Your task to perform on an android device: Show me popular games on the Play Store Image 0: 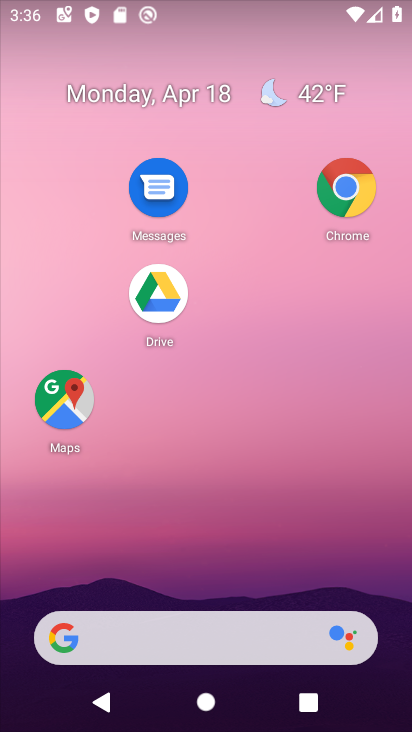
Step 0: drag from (222, 559) to (269, 138)
Your task to perform on an android device: Show me popular games on the Play Store Image 1: 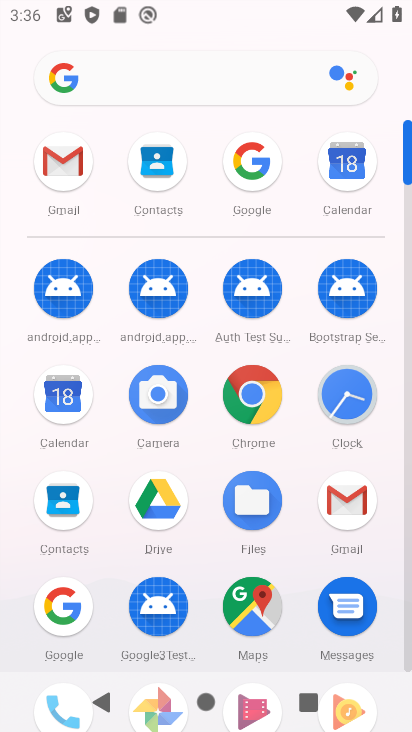
Step 1: drag from (209, 544) to (202, 432)
Your task to perform on an android device: Show me popular games on the Play Store Image 2: 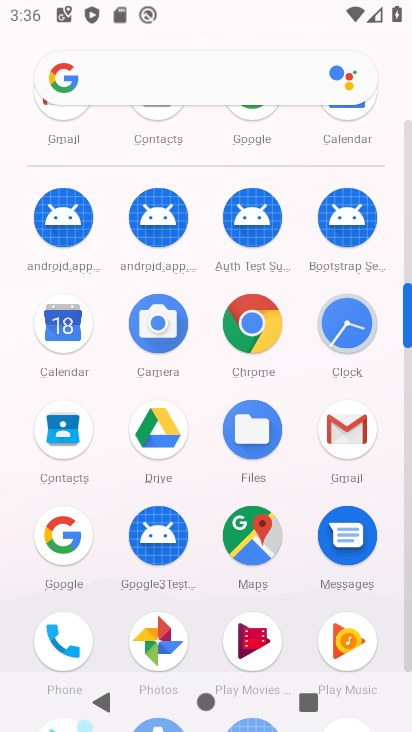
Step 2: drag from (222, 532) to (224, 421)
Your task to perform on an android device: Show me popular games on the Play Store Image 3: 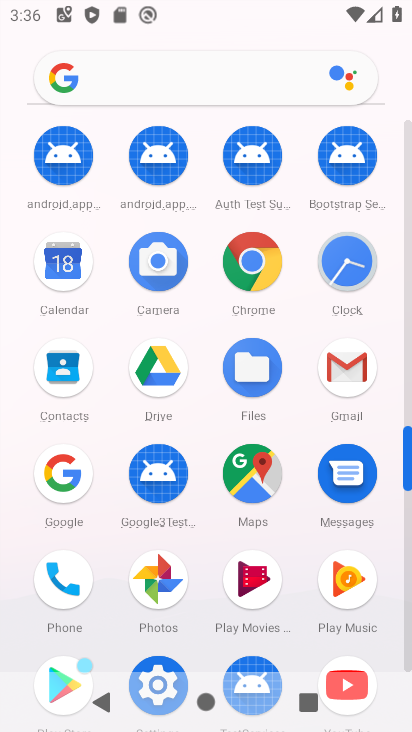
Step 3: drag from (208, 570) to (215, 391)
Your task to perform on an android device: Show me popular games on the Play Store Image 4: 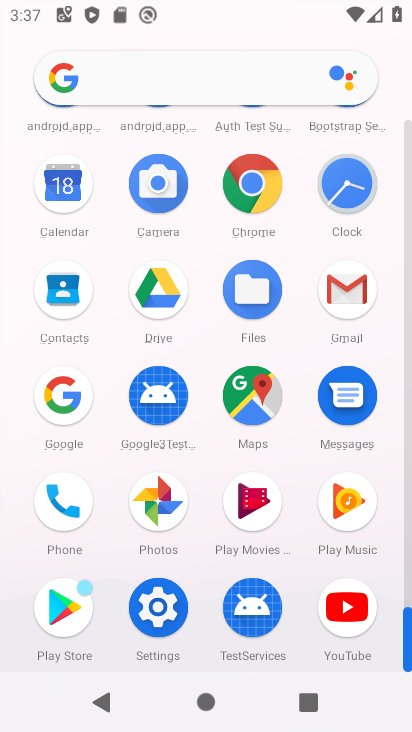
Step 4: click (62, 599)
Your task to perform on an android device: Show me popular games on the Play Store Image 5: 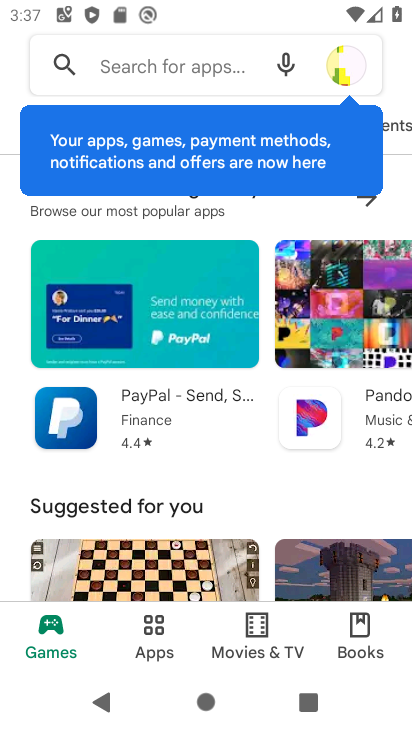
Step 5: click (209, 68)
Your task to perform on an android device: Show me popular games on the Play Store Image 6: 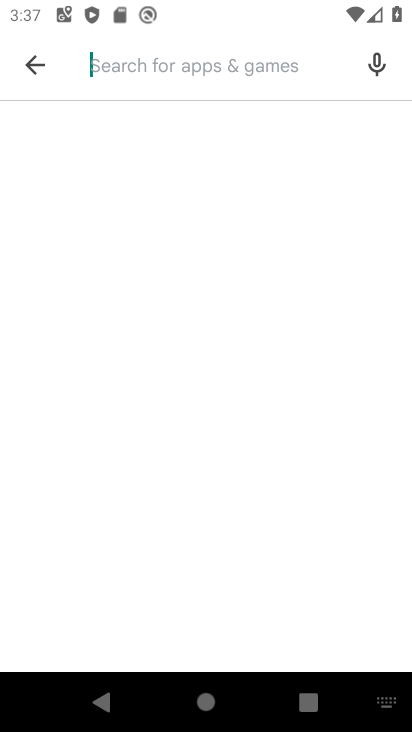
Step 6: type "popular games"
Your task to perform on an android device: Show me popular games on the Play Store Image 7: 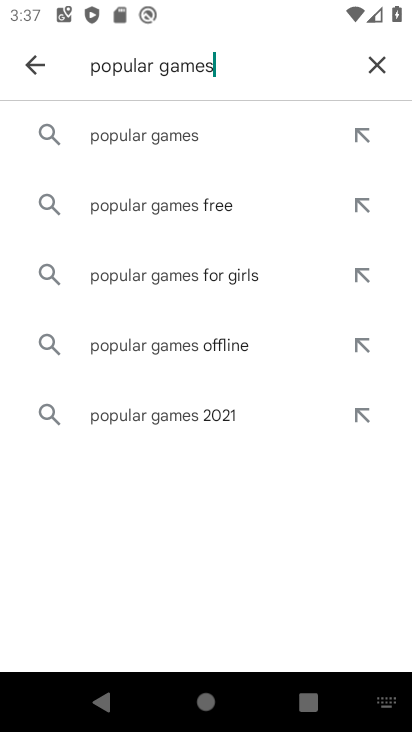
Step 7: click (161, 215)
Your task to perform on an android device: Show me popular games on the Play Store Image 8: 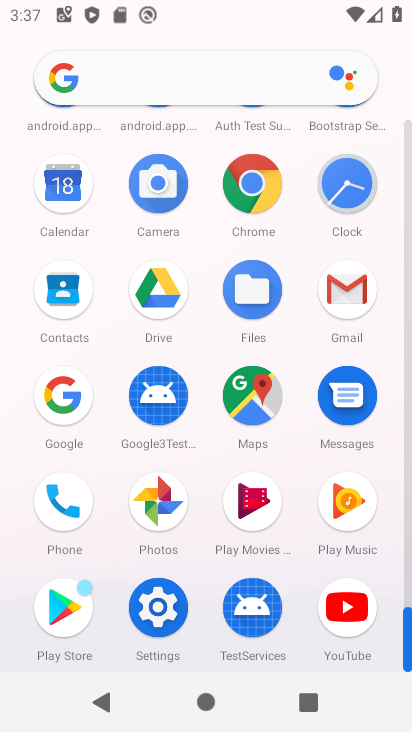
Step 8: drag from (195, 428) to (202, 286)
Your task to perform on an android device: Show me popular games on the Play Store Image 9: 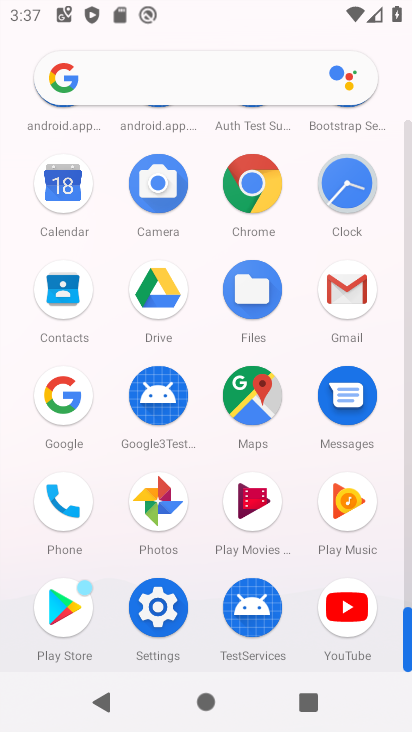
Step 9: click (48, 605)
Your task to perform on an android device: Show me popular games on the Play Store Image 10: 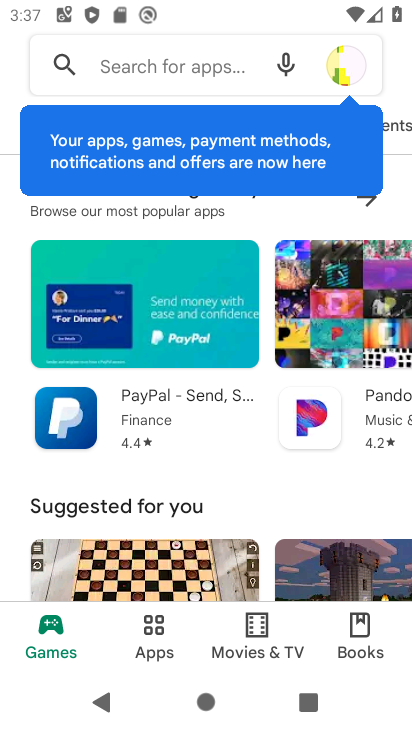
Step 10: click (208, 82)
Your task to perform on an android device: Show me popular games on the Play Store Image 11: 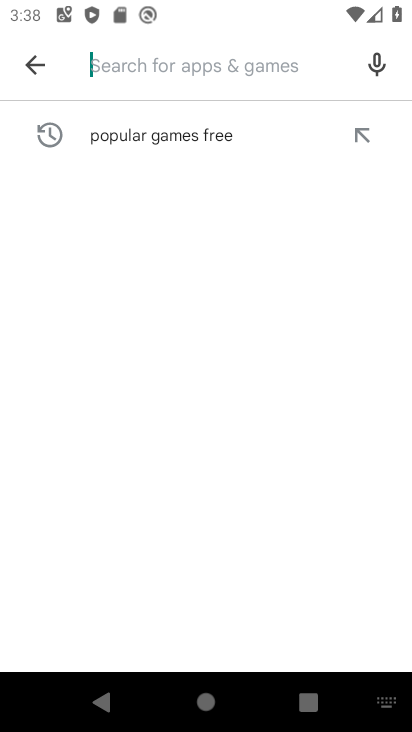
Step 11: click (152, 141)
Your task to perform on an android device: Show me popular games on the Play Store Image 12: 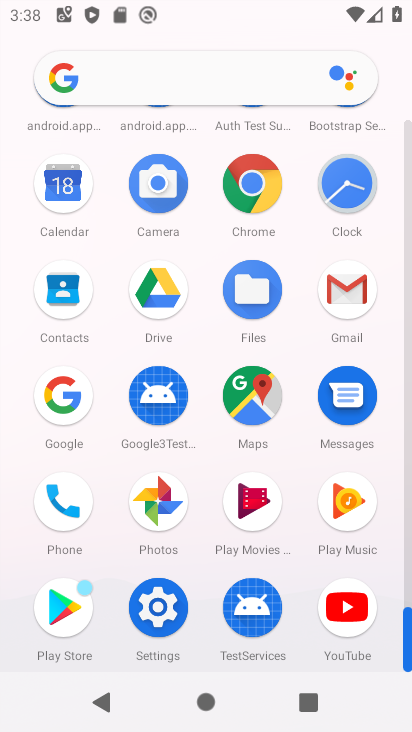
Step 12: task complete